Your task to perform on an android device: clear all cookies in the chrome app Image 0: 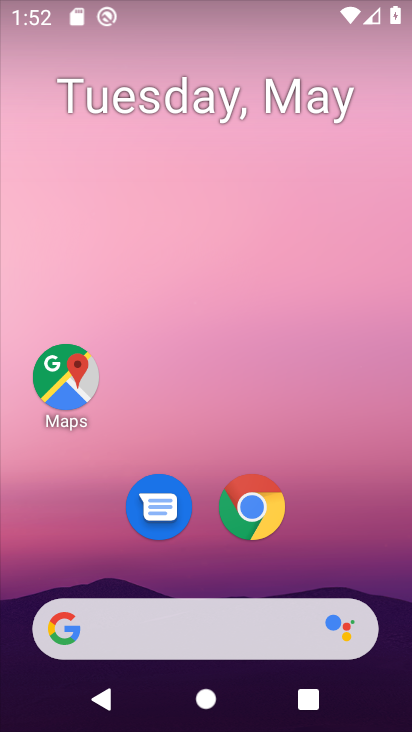
Step 0: click (263, 526)
Your task to perform on an android device: clear all cookies in the chrome app Image 1: 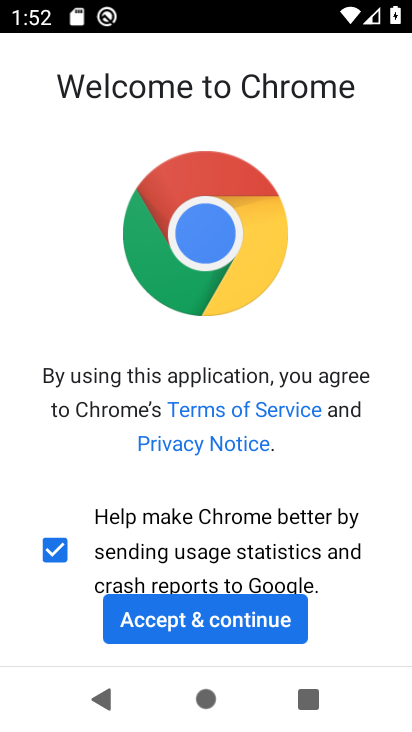
Step 1: click (276, 602)
Your task to perform on an android device: clear all cookies in the chrome app Image 2: 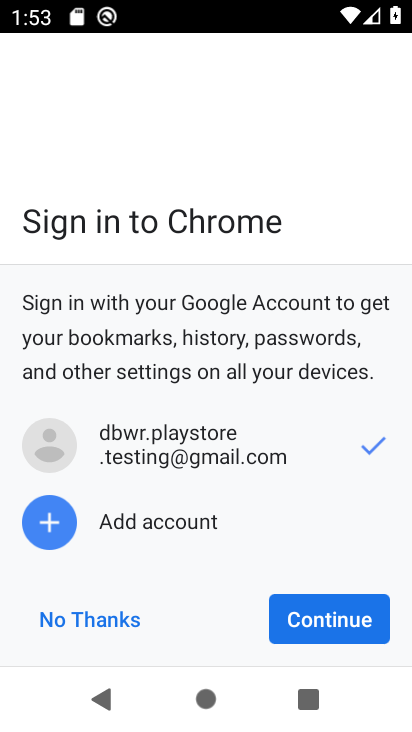
Step 2: click (317, 617)
Your task to perform on an android device: clear all cookies in the chrome app Image 3: 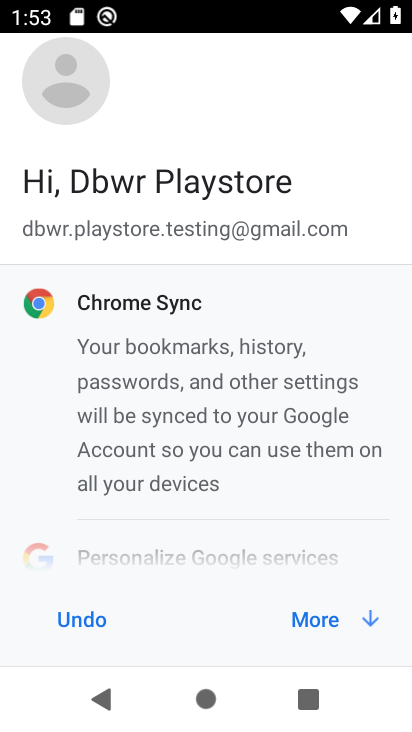
Step 3: click (346, 622)
Your task to perform on an android device: clear all cookies in the chrome app Image 4: 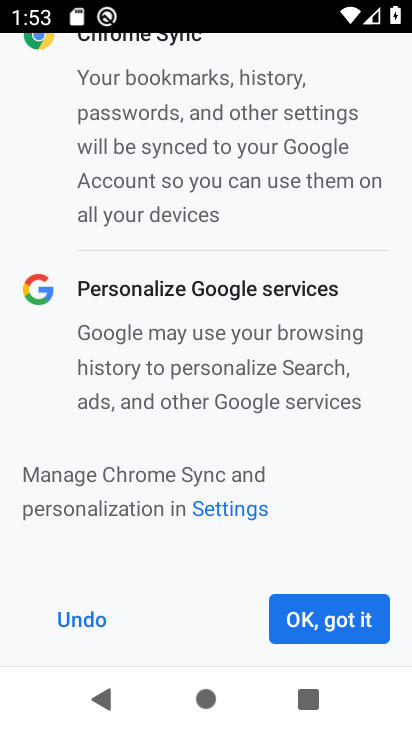
Step 4: click (356, 618)
Your task to perform on an android device: clear all cookies in the chrome app Image 5: 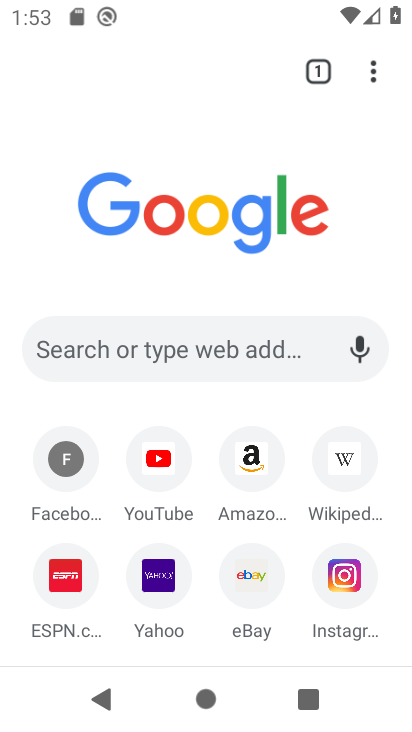
Step 5: task complete